Your task to perform on an android device: Open eBay Image 0: 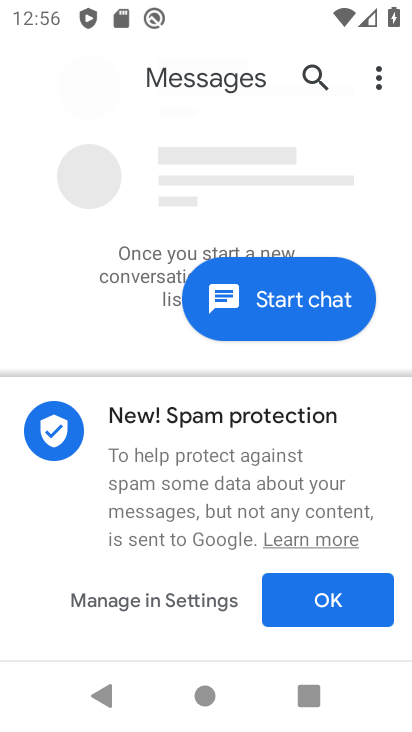
Step 0: press home button
Your task to perform on an android device: Open eBay Image 1: 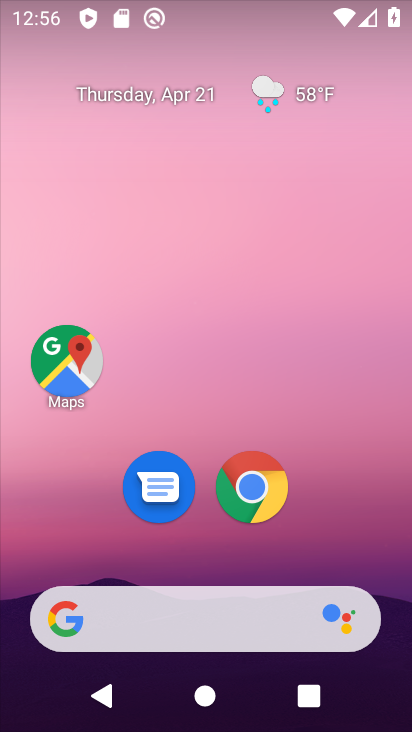
Step 1: click (253, 489)
Your task to perform on an android device: Open eBay Image 2: 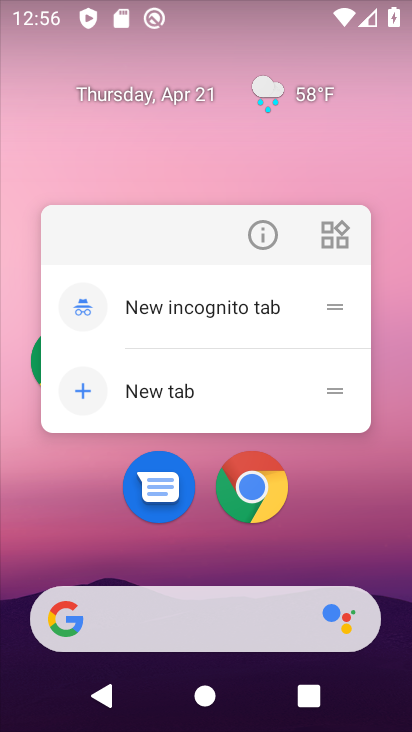
Step 2: click (253, 489)
Your task to perform on an android device: Open eBay Image 3: 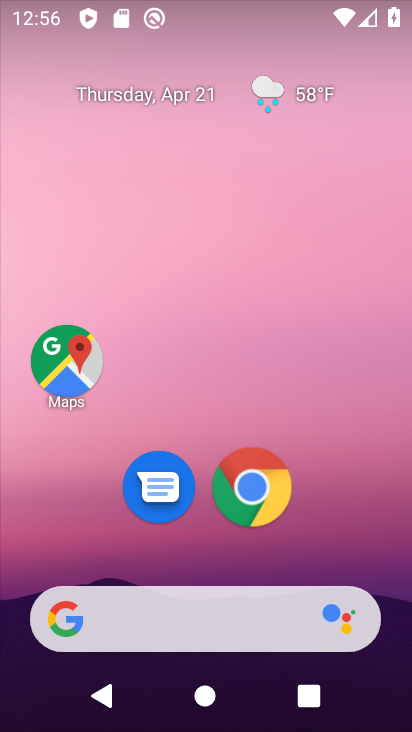
Step 3: click (253, 489)
Your task to perform on an android device: Open eBay Image 4: 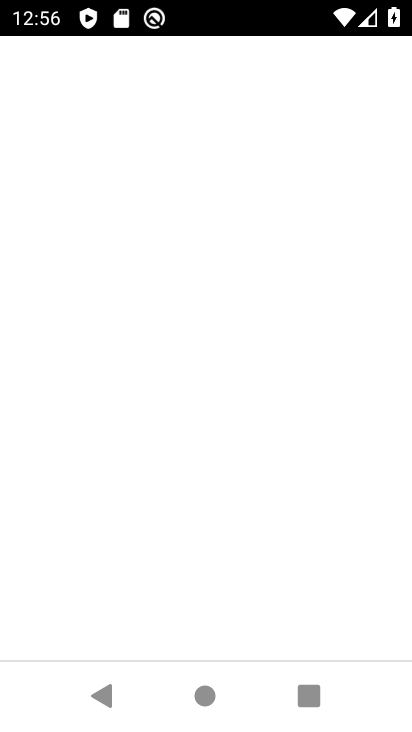
Step 4: click (253, 489)
Your task to perform on an android device: Open eBay Image 5: 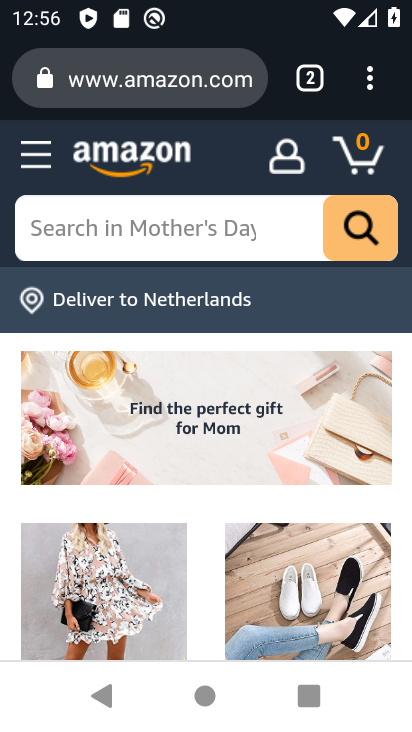
Step 5: click (171, 84)
Your task to perform on an android device: Open eBay Image 6: 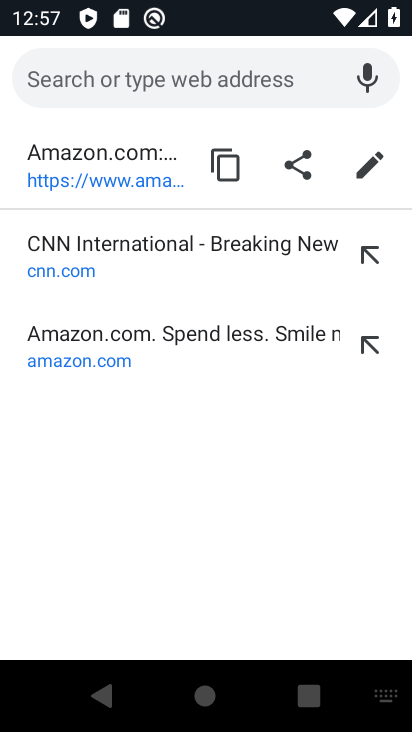
Step 6: type "ebay"
Your task to perform on an android device: Open eBay Image 7: 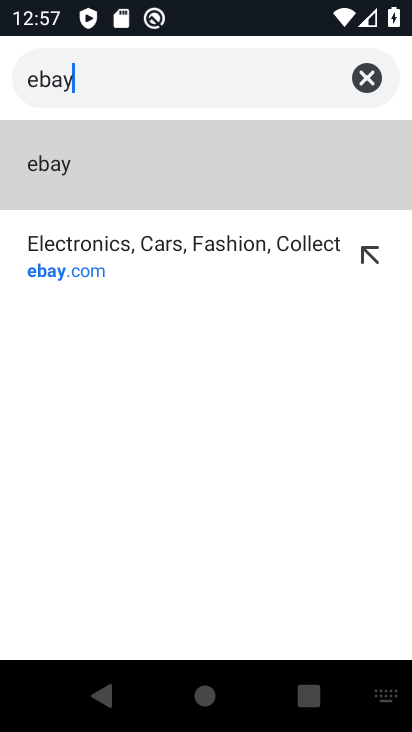
Step 7: click (41, 168)
Your task to perform on an android device: Open eBay Image 8: 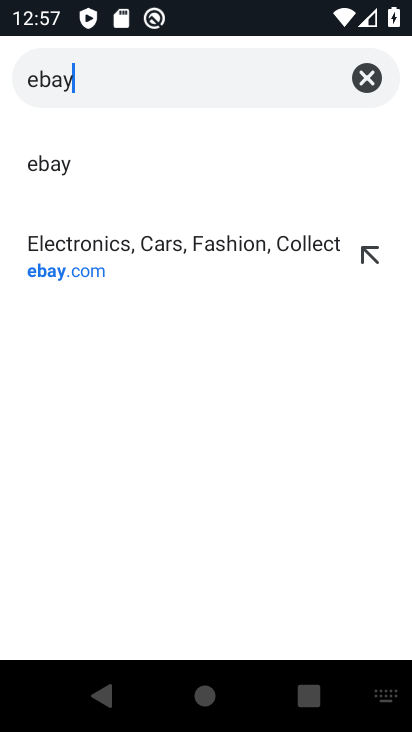
Step 8: click (35, 276)
Your task to perform on an android device: Open eBay Image 9: 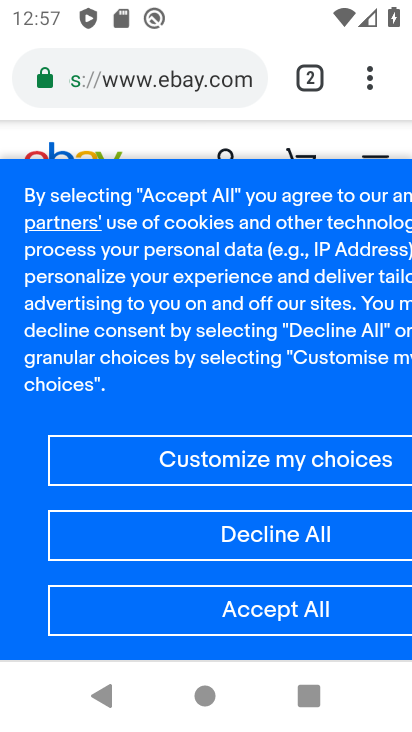
Step 9: task complete